Your task to perform on an android device: toggle data saver in the chrome app Image 0: 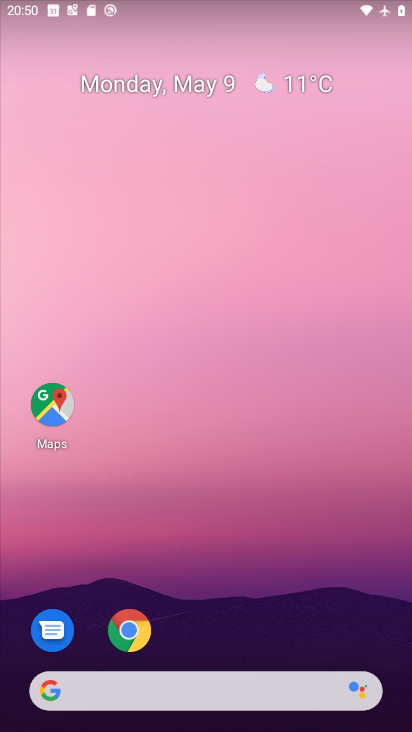
Step 0: click (140, 642)
Your task to perform on an android device: toggle data saver in the chrome app Image 1: 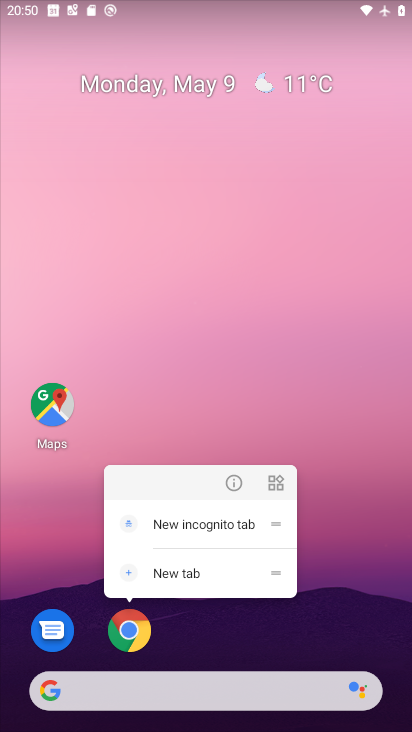
Step 1: click (122, 636)
Your task to perform on an android device: toggle data saver in the chrome app Image 2: 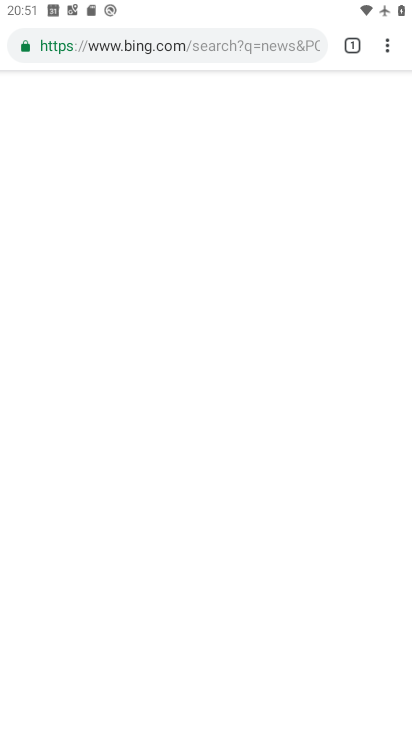
Step 2: drag from (387, 48) to (253, 509)
Your task to perform on an android device: toggle data saver in the chrome app Image 3: 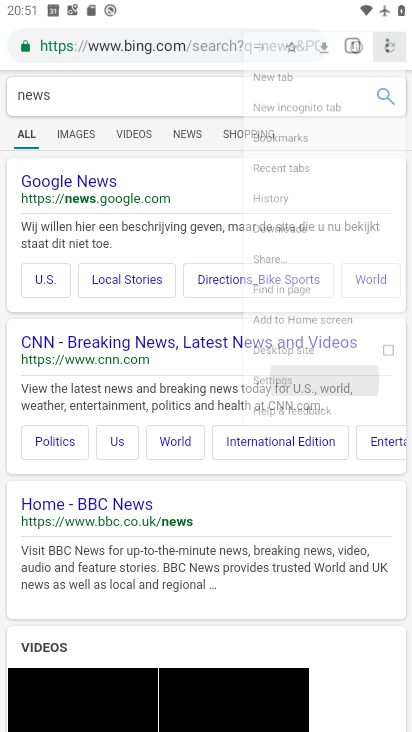
Step 3: click (234, 511)
Your task to perform on an android device: toggle data saver in the chrome app Image 4: 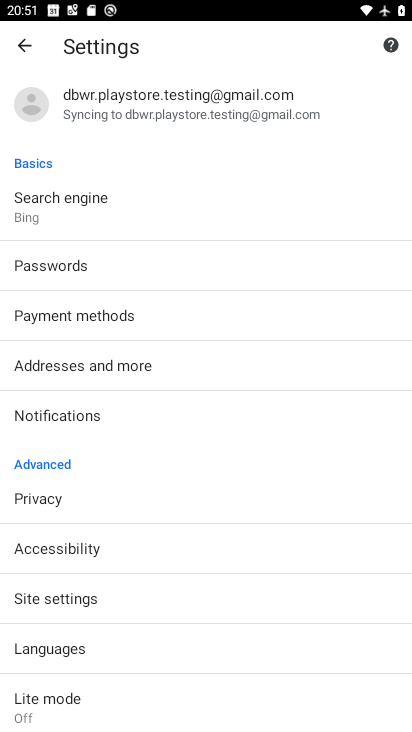
Step 4: drag from (176, 625) to (208, 341)
Your task to perform on an android device: toggle data saver in the chrome app Image 5: 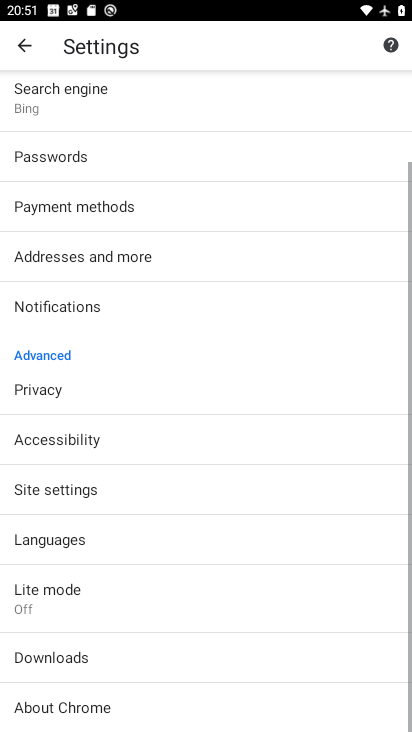
Step 5: drag from (107, 712) to (116, 658)
Your task to perform on an android device: toggle data saver in the chrome app Image 6: 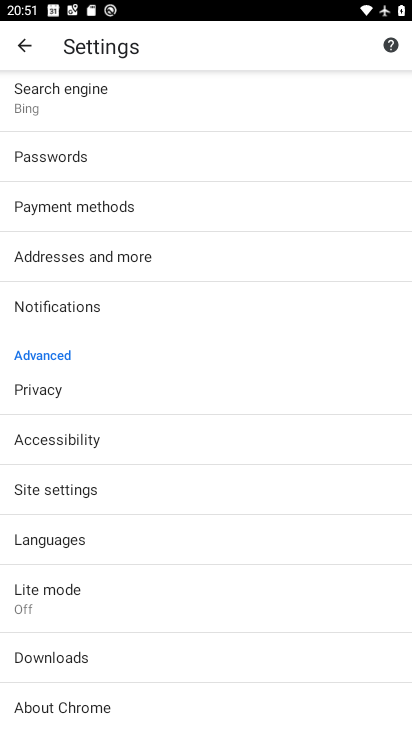
Step 6: click (108, 598)
Your task to perform on an android device: toggle data saver in the chrome app Image 7: 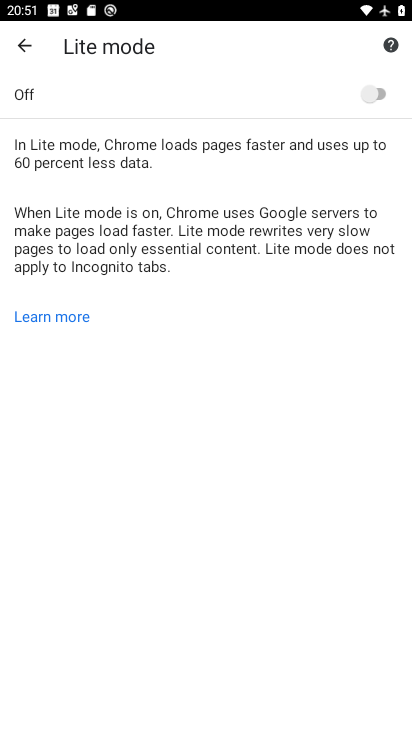
Step 7: click (374, 81)
Your task to perform on an android device: toggle data saver in the chrome app Image 8: 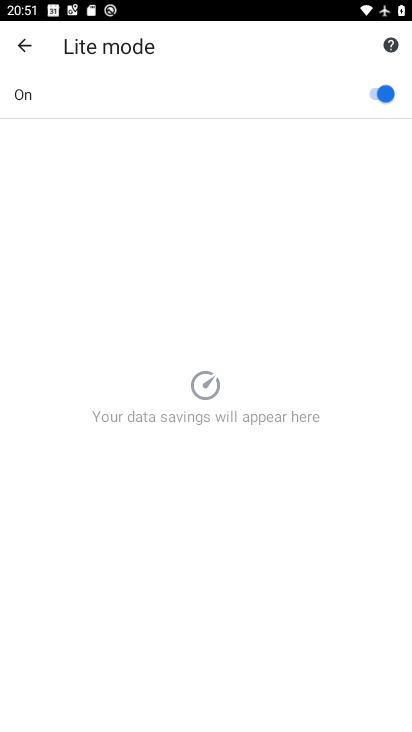
Step 8: task complete